Your task to perform on an android device: Search for the best rated drill on Lowes.com Image 0: 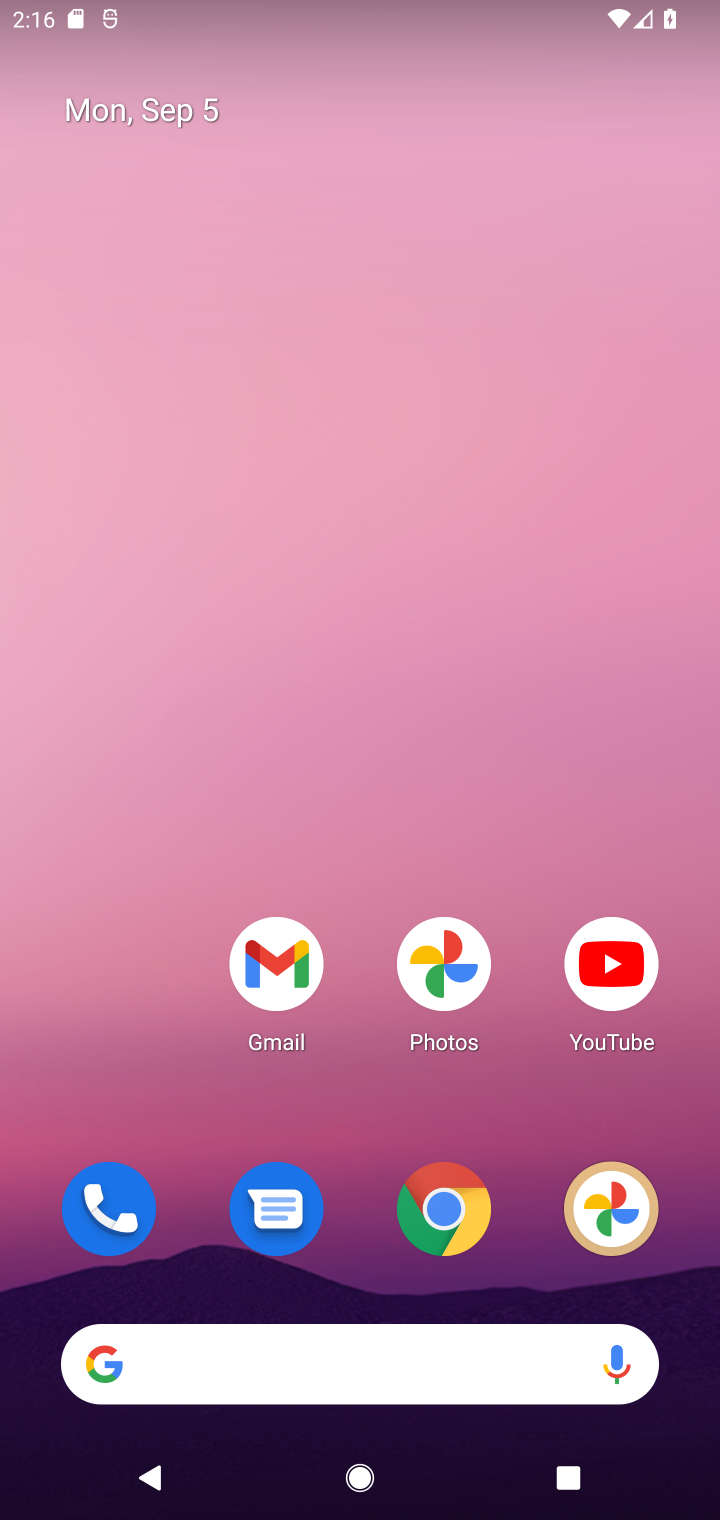
Step 0: drag from (275, 1383) to (352, 398)
Your task to perform on an android device: Search for the best rated drill on Lowes.com Image 1: 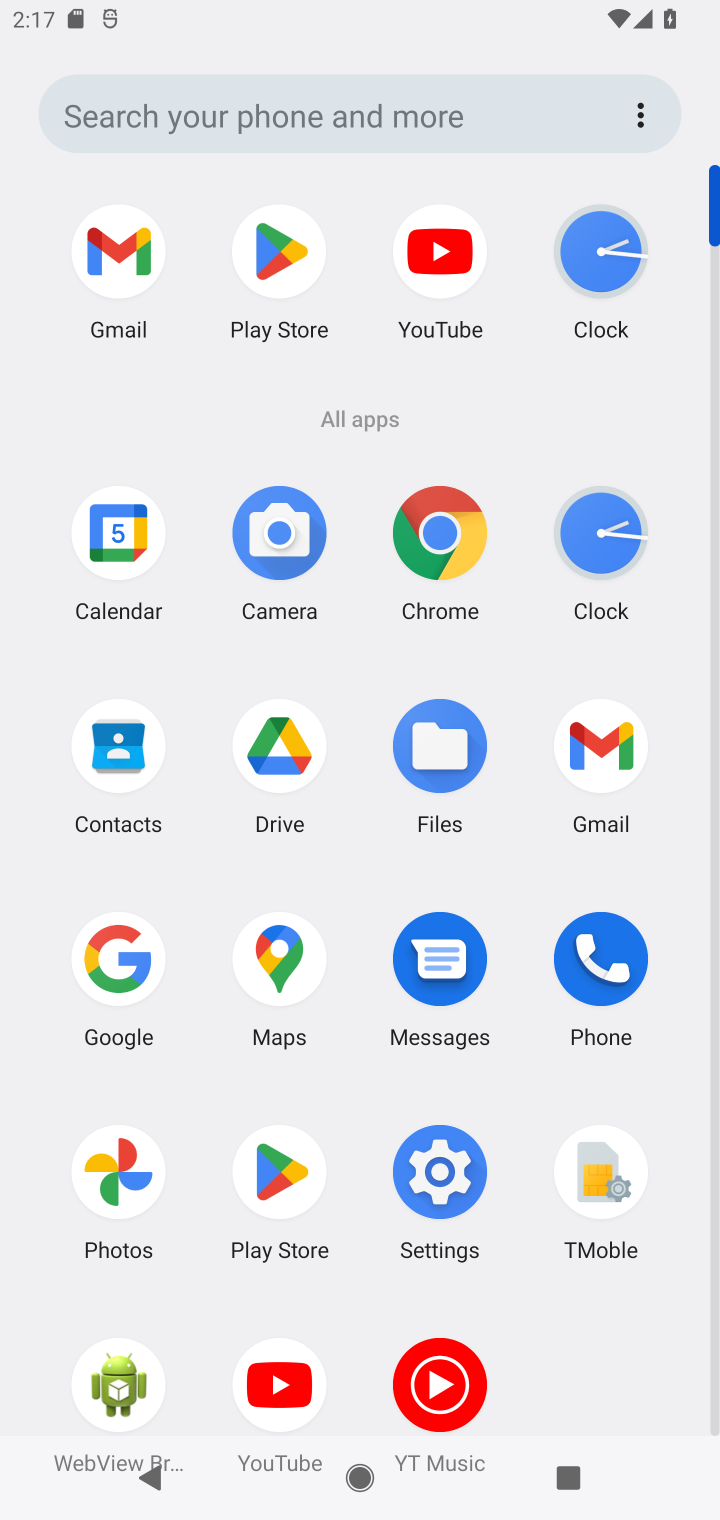
Step 1: click (114, 978)
Your task to perform on an android device: Search for the best rated drill on Lowes.com Image 2: 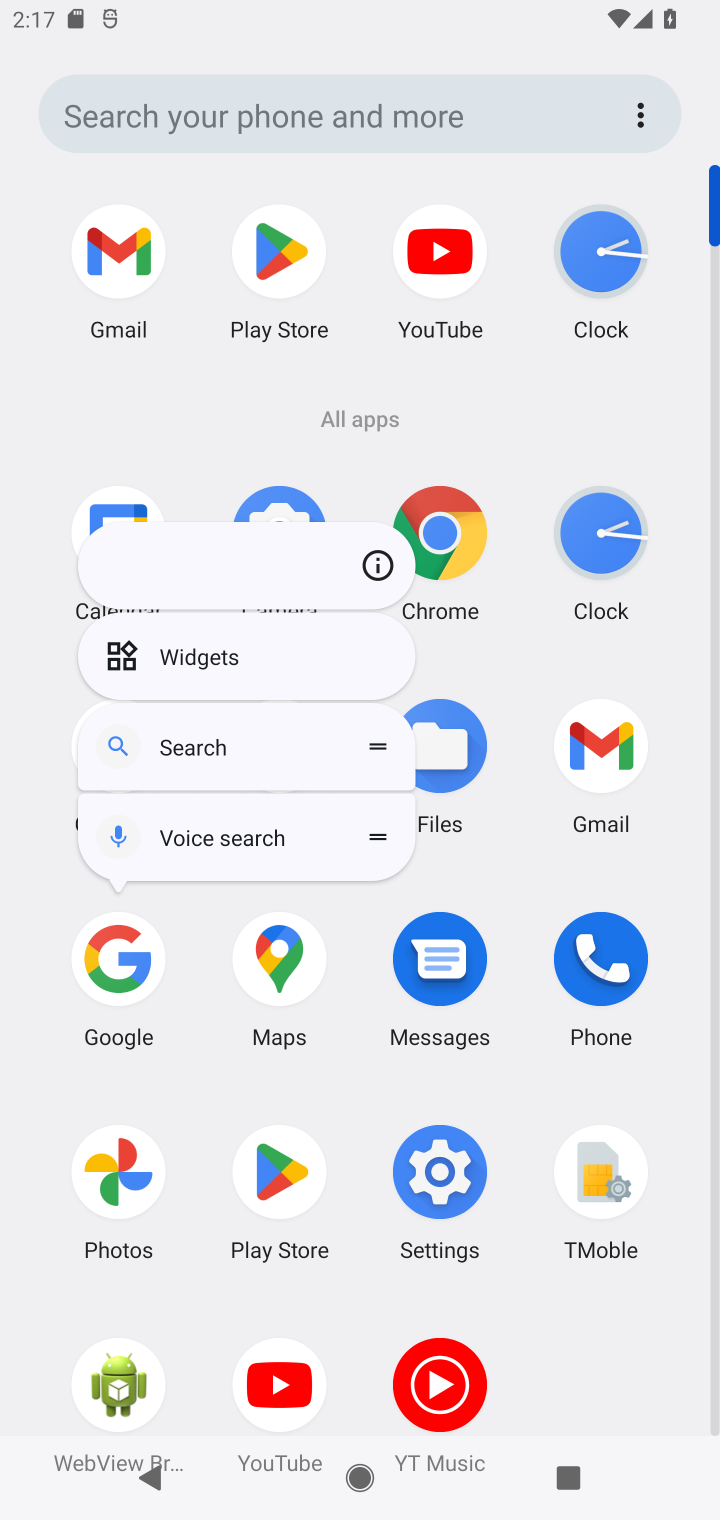
Step 2: click (517, 654)
Your task to perform on an android device: Search for the best rated drill on Lowes.com Image 3: 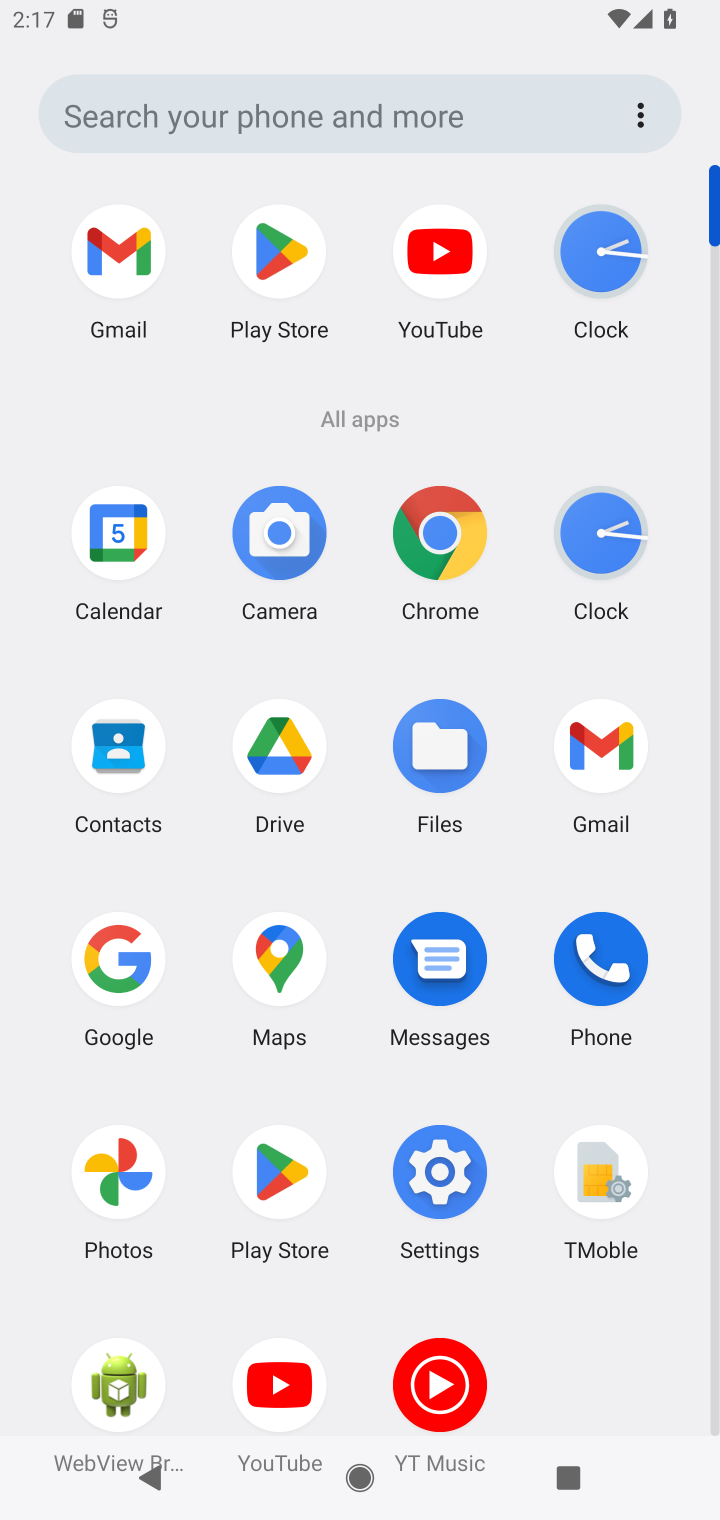
Step 3: click (111, 954)
Your task to perform on an android device: Search for the best rated drill on Lowes.com Image 4: 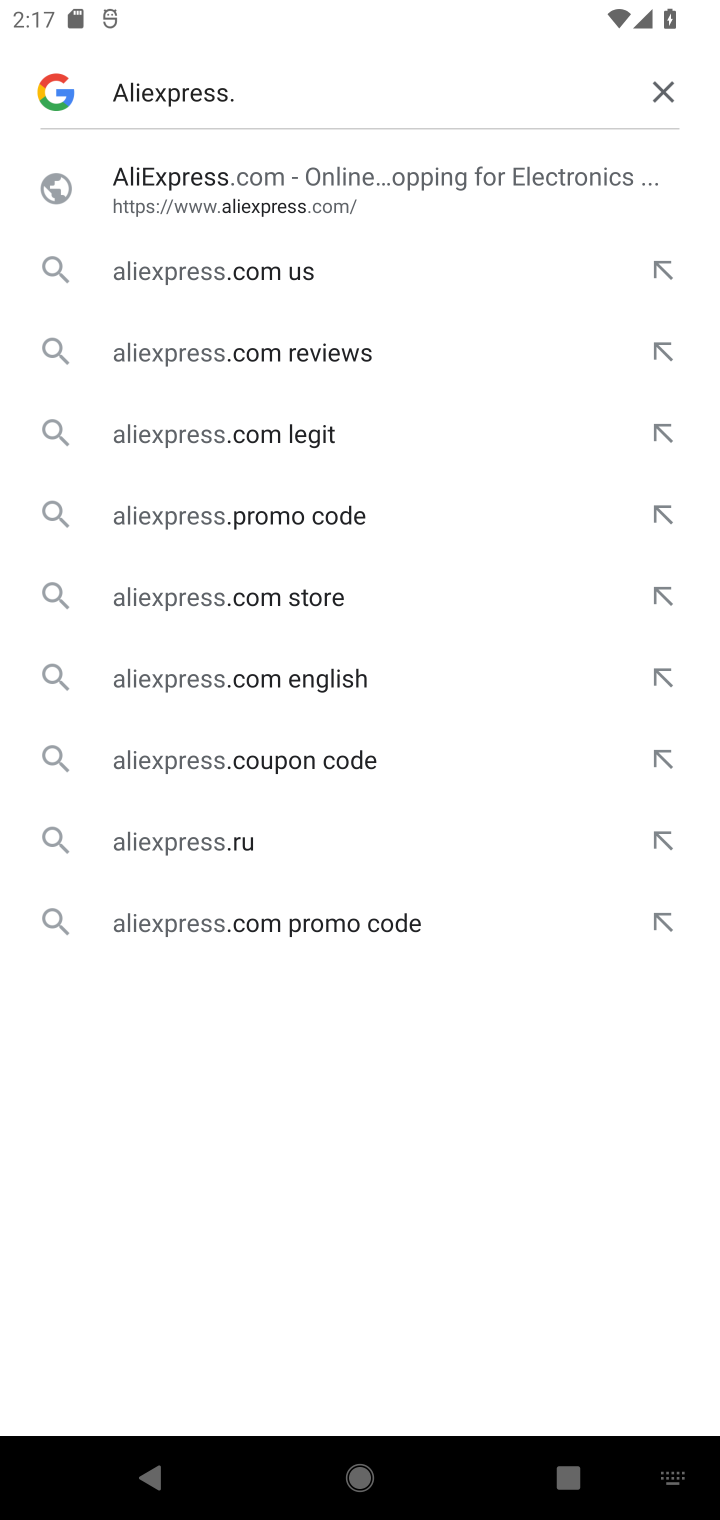
Step 4: click (240, 92)
Your task to perform on an android device: Search for the best rated drill on Lowes.com Image 5: 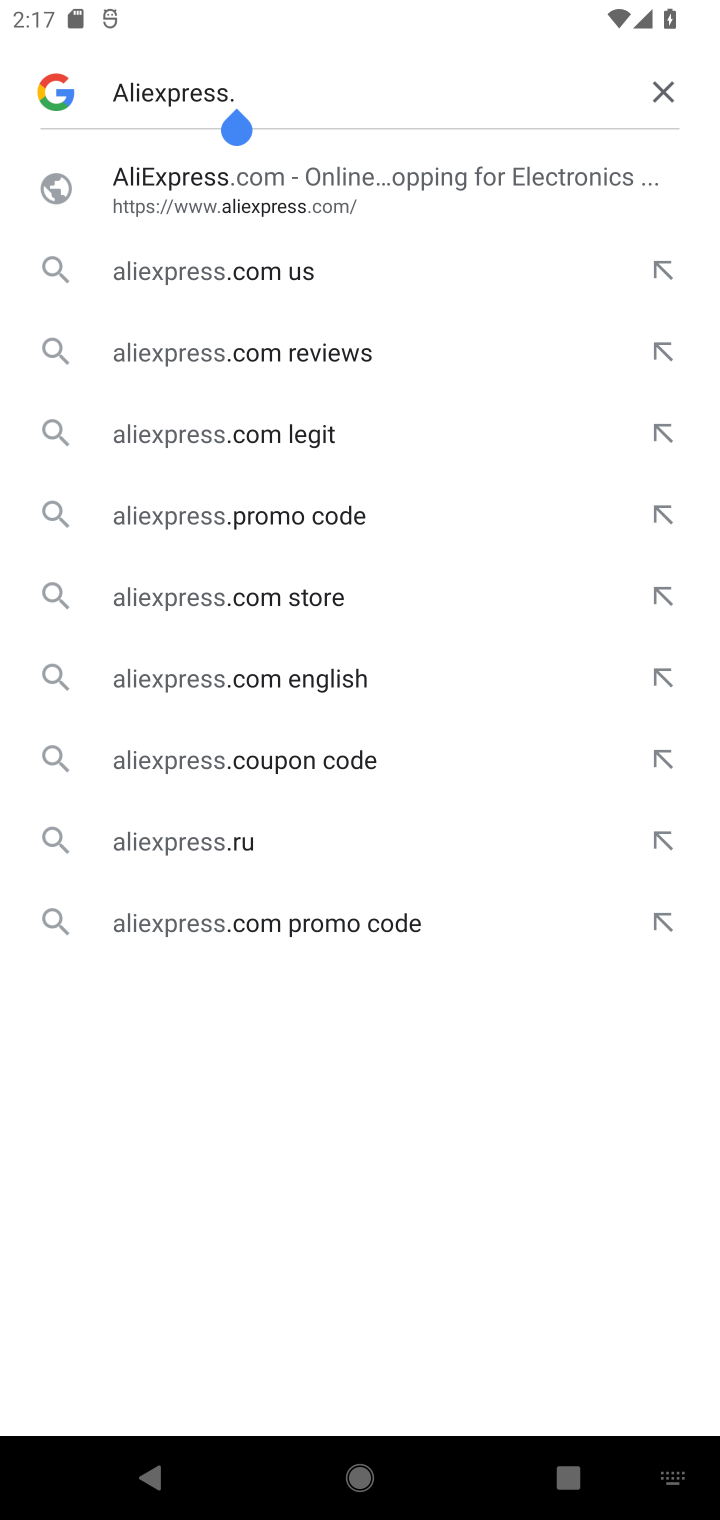
Step 5: click (662, 90)
Your task to perform on an android device: Search for the best rated drill on Lowes.com Image 6: 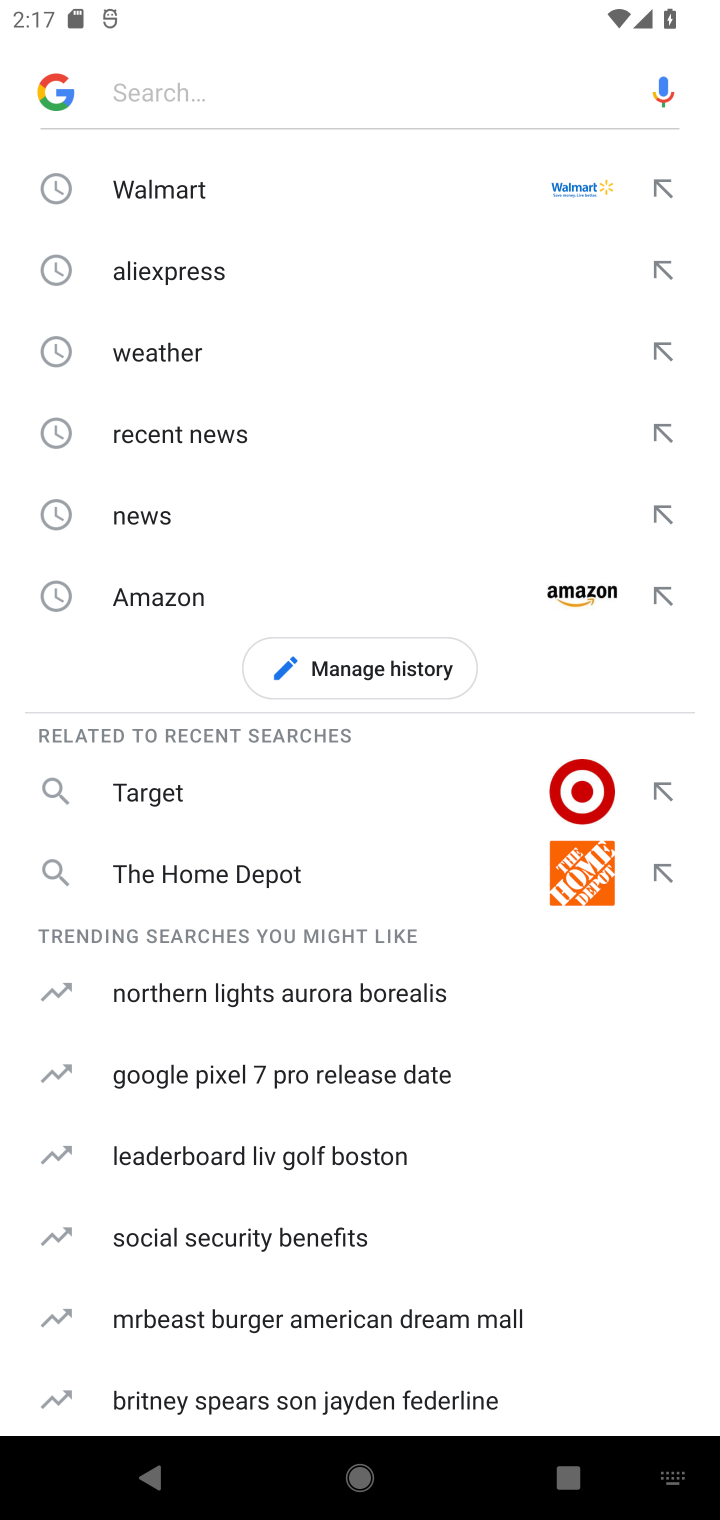
Step 6: type "Lowes.com"
Your task to perform on an android device: Search for the best rated drill on Lowes.com Image 7: 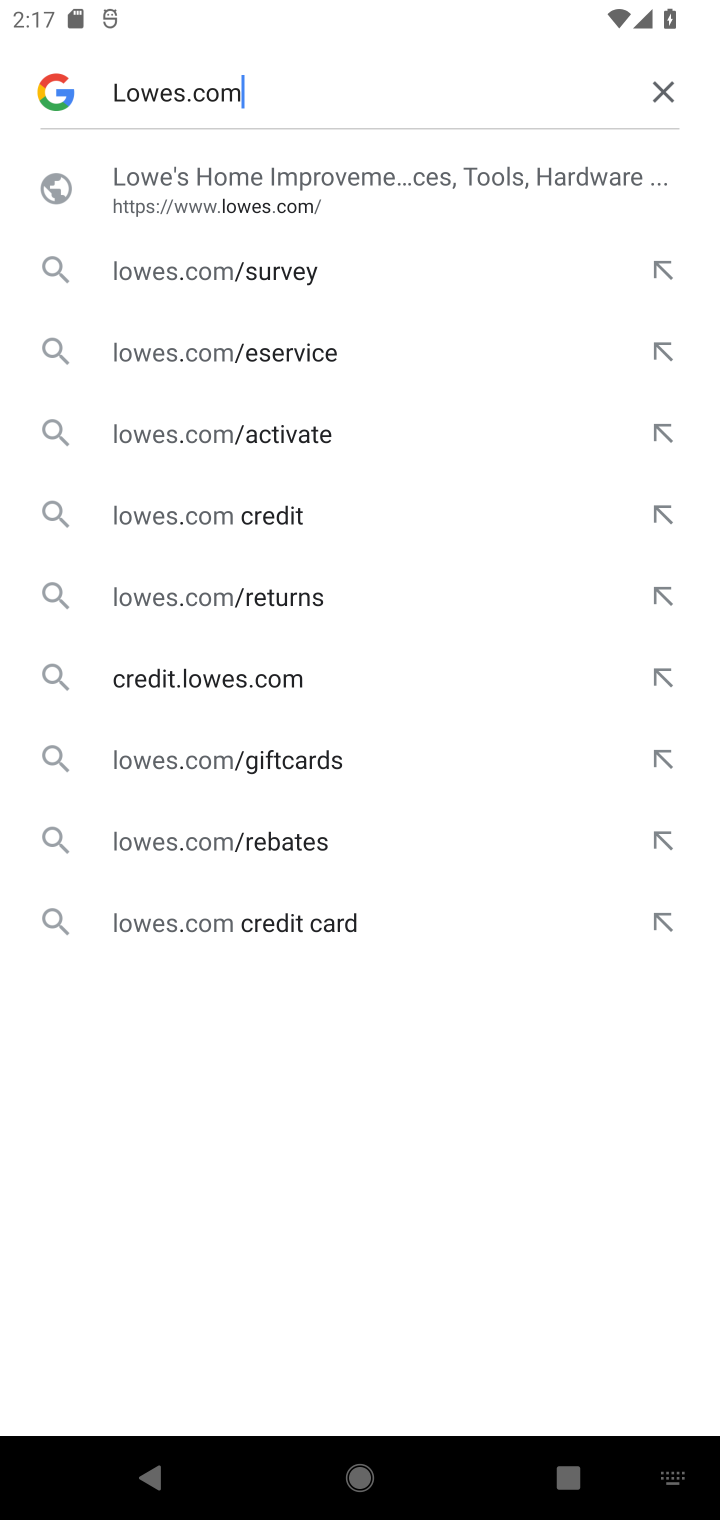
Step 7: click (220, 182)
Your task to perform on an android device: Search for the best rated drill on Lowes.com Image 8: 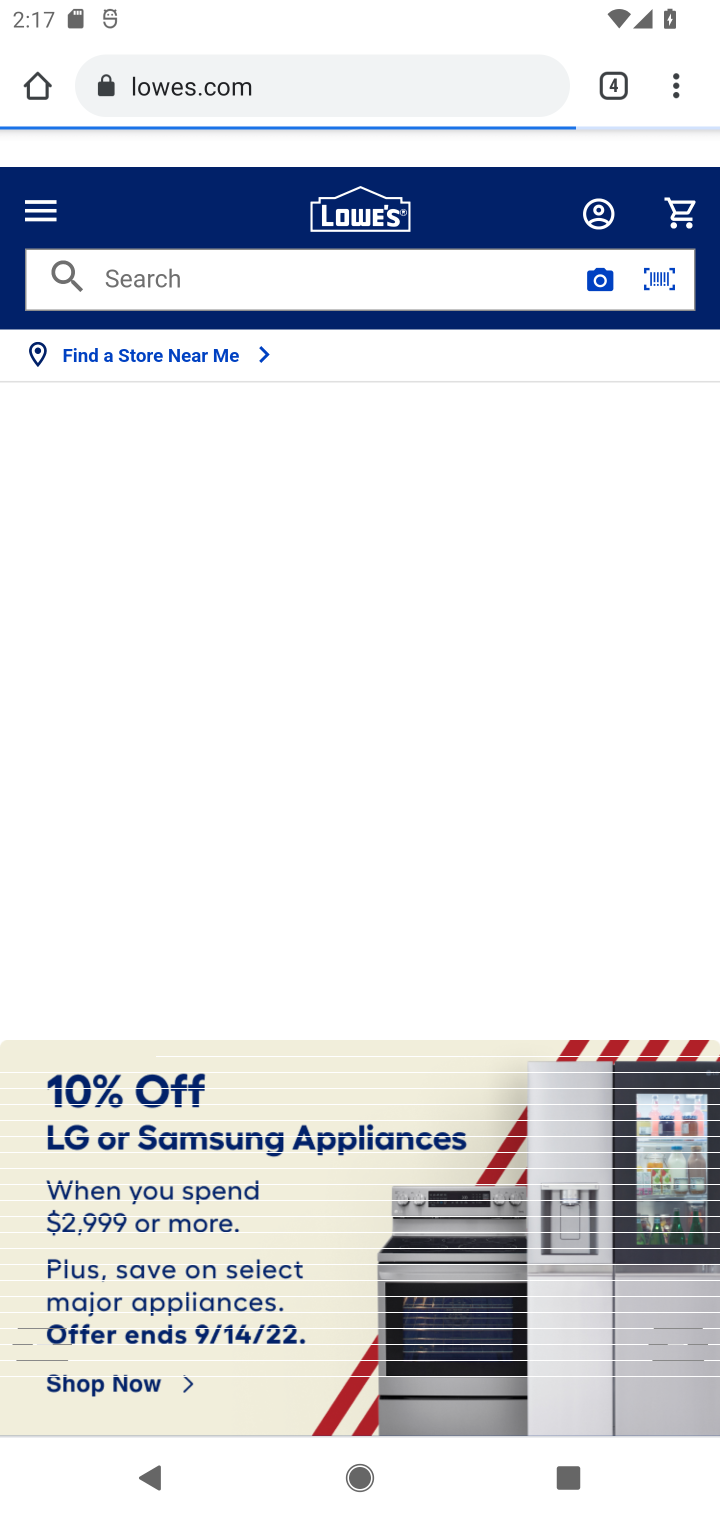
Step 8: click (383, 284)
Your task to perform on an android device: Search for the best rated drill on Lowes.com Image 9: 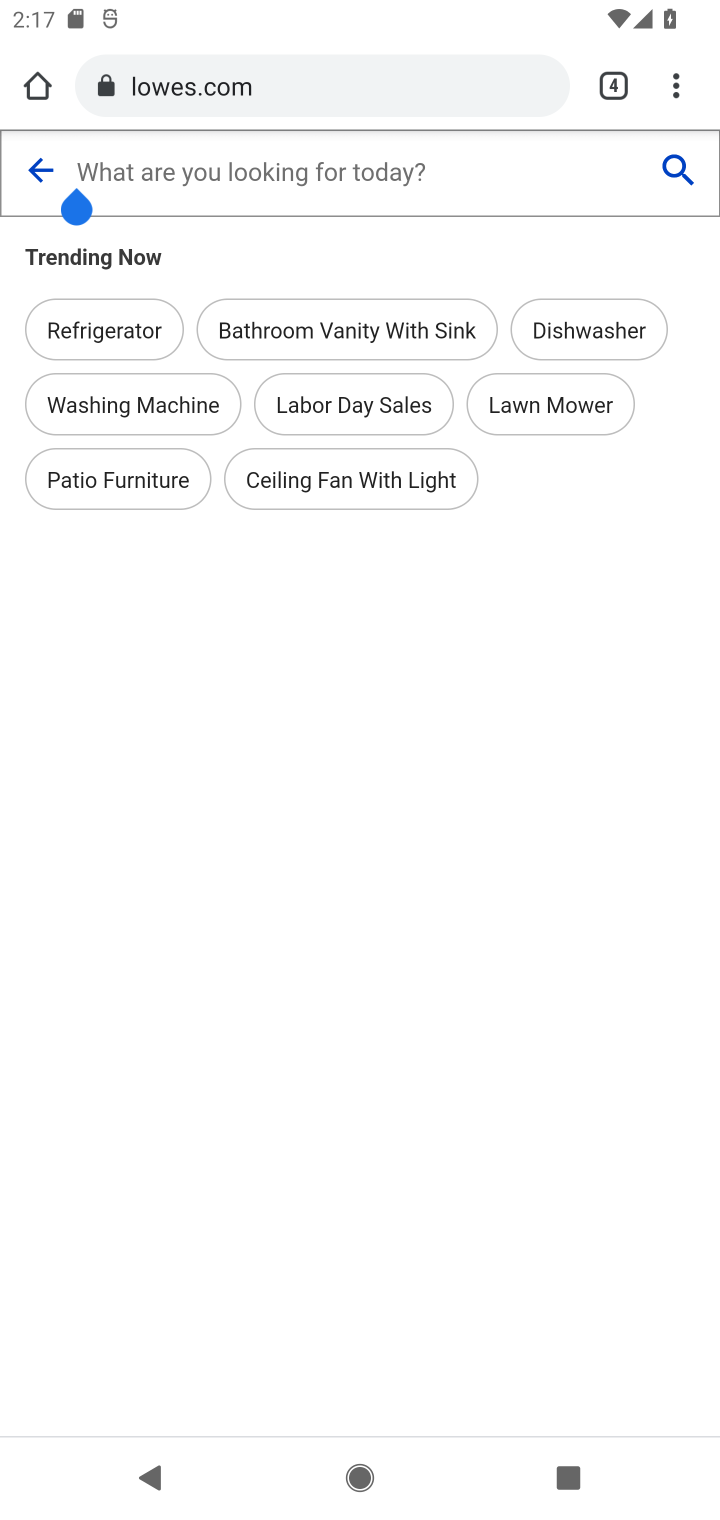
Step 9: type "best rated drill "
Your task to perform on an android device: Search for the best rated drill on Lowes.com Image 10: 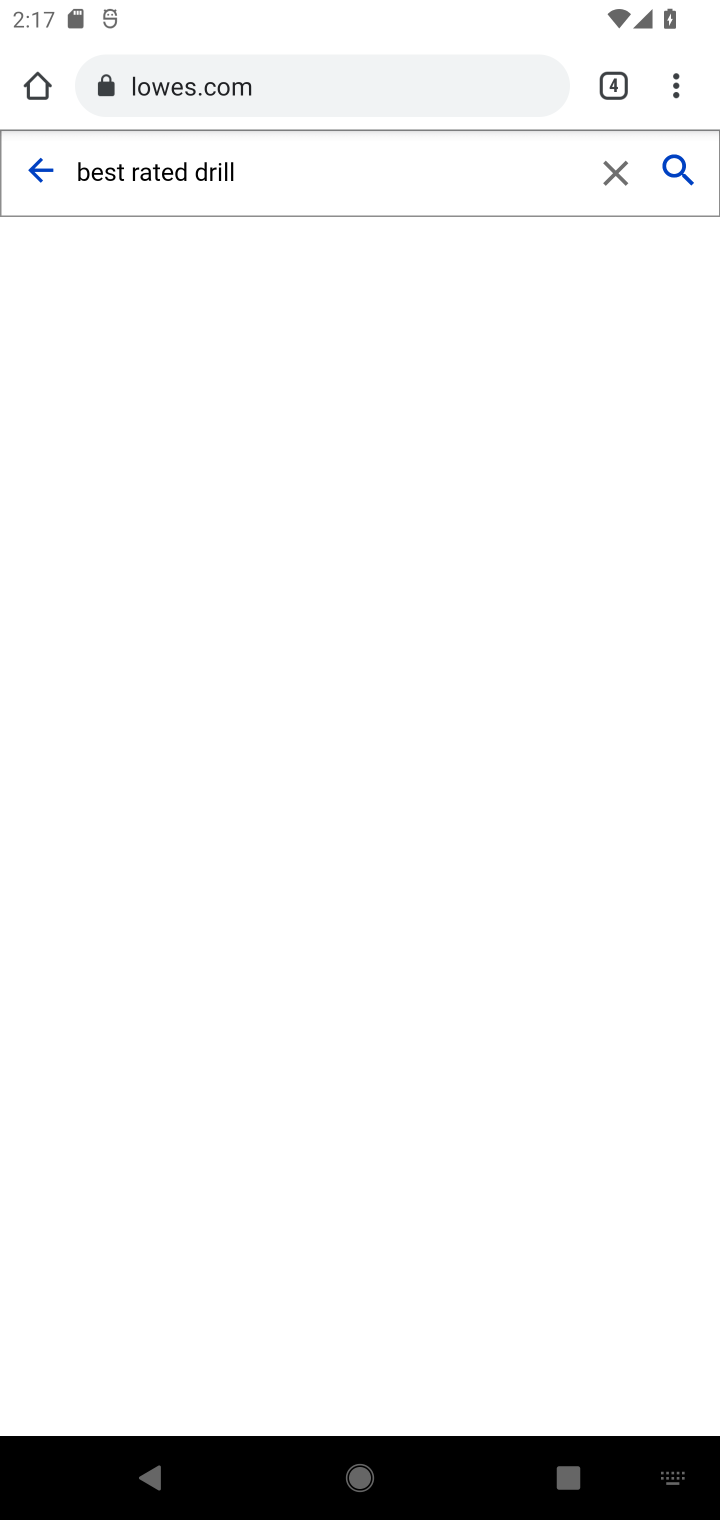
Step 10: click (683, 152)
Your task to perform on an android device: Search for the best rated drill on Lowes.com Image 11: 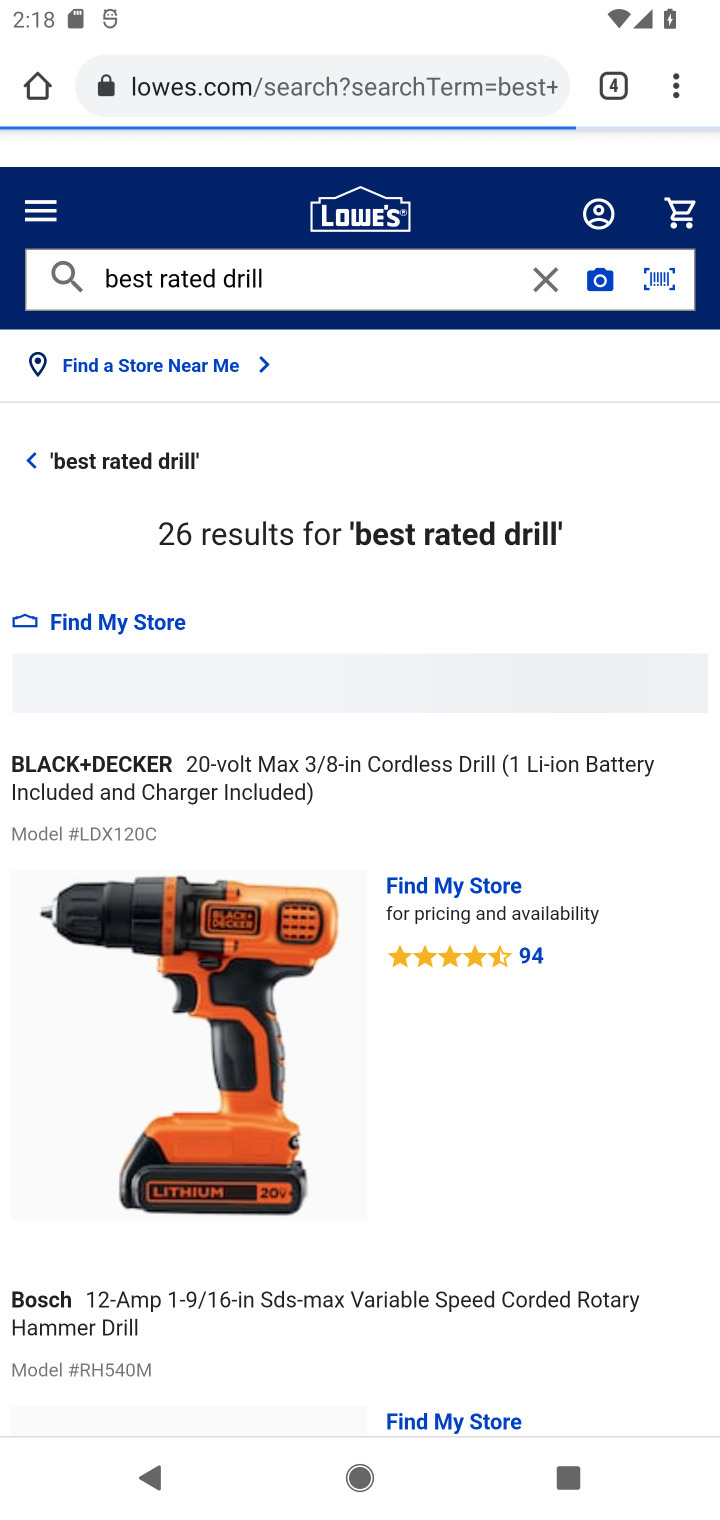
Step 11: task complete